Your task to perform on an android device: Open Youtube and go to the subscriptions tab Image 0: 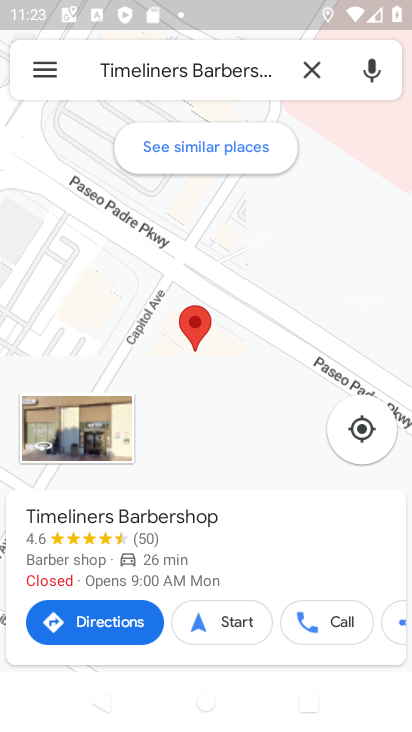
Step 0: press home button
Your task to perform on an android device: Open Youtube and go to the subscriptions tab Image 1: 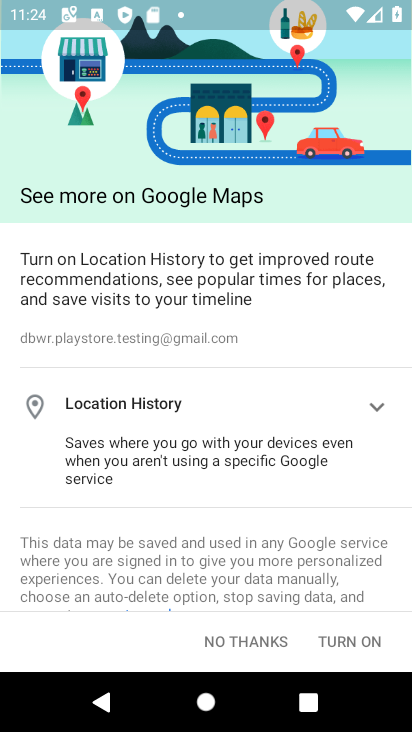
Step 1: press home button
Your task to perform on an android device: Open Youtube and go to the subscriptions tab Image 2: 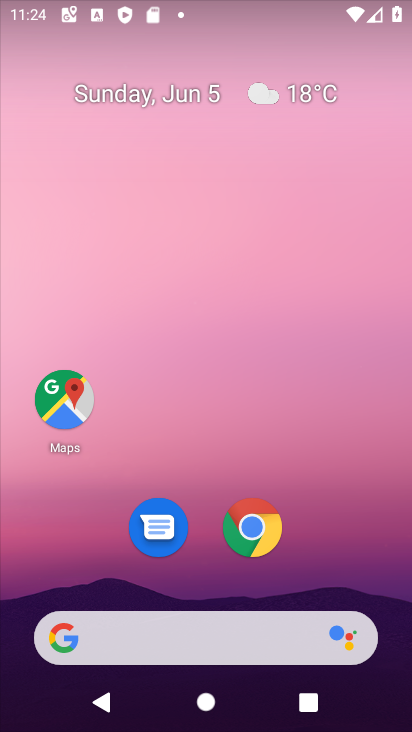
Step 2: drag from (330, 510) to (333, 377)
Your task to perform on an android device: Open Youtube and go to the subscriptions tab Image 3: 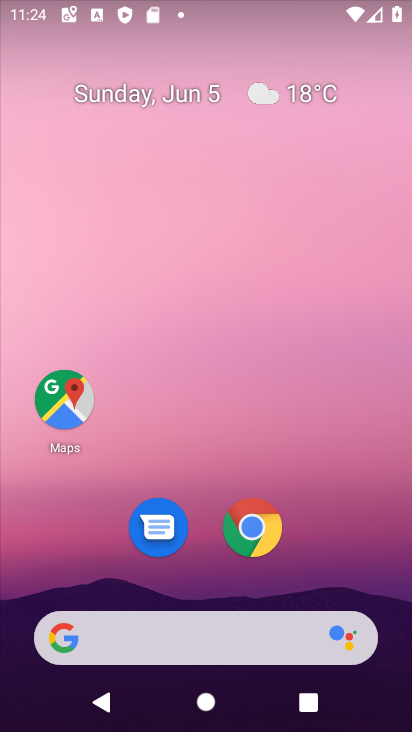
Step 3: drag from (330, 564) to (286, 215)
Your task to perform on an android device: Open Youtube and go to the subscriptions tab Image 4: 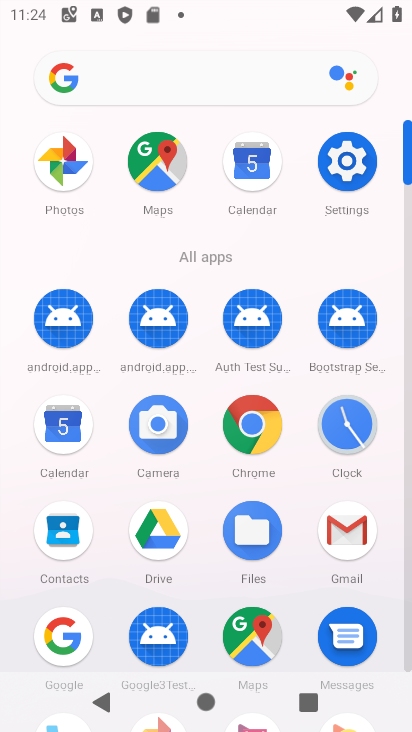
Step 4: click (405, 607)
Your task to perform on an android device: Open Youtube and go to the subscriptions tab Image 5: 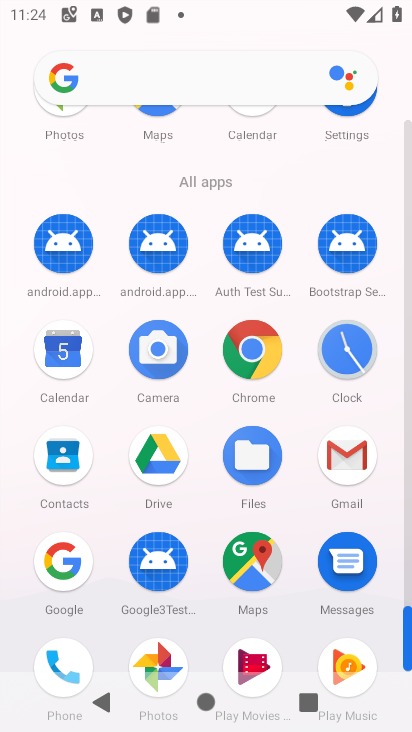
Step 5: drag from (391, 608) to (370, 303)
Your task to perform on an android device: Open Youtube and go to the subscriptions tab Image 6: 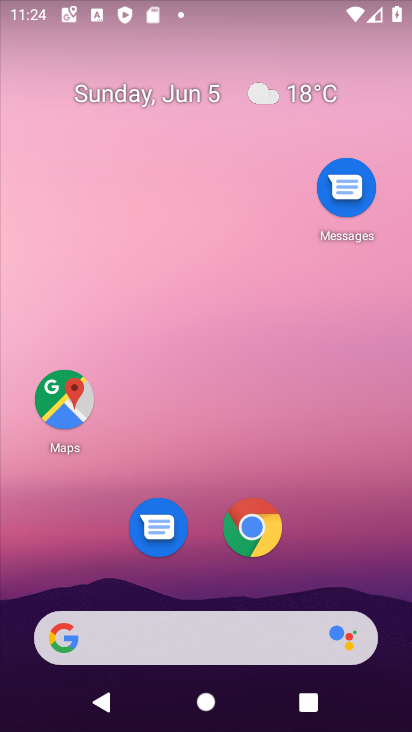
Step 6: drag from (352, 524) to (341, 249)
Your task to perform on an android device: Open Youtube and go to the subscriptions tab Image 7: 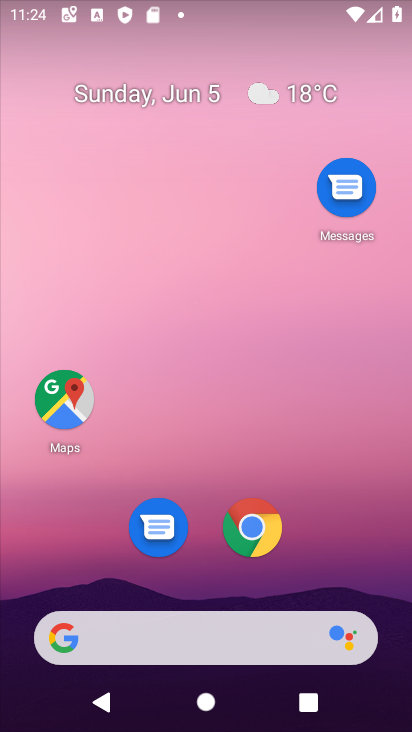
Step 7: drag from (354, 557) to (335, 154)
Your task to perform on an android device: Open Youtube and go to the subscriptions tab Image 8: 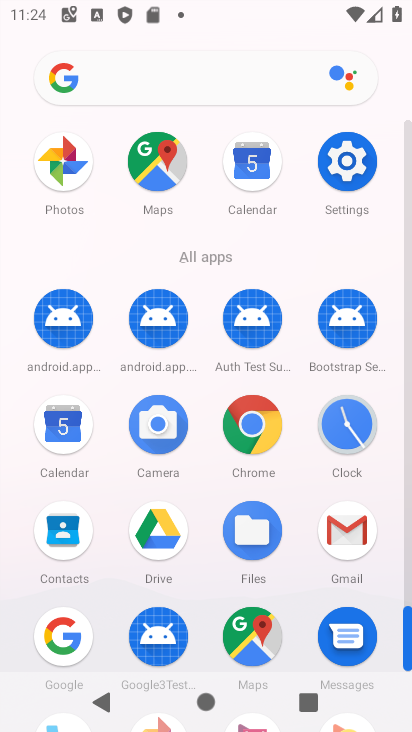
Step 8: click (410, 692)
Your task to perform on an android device: Open Youtube and go to the subscriptions tab Image 9: 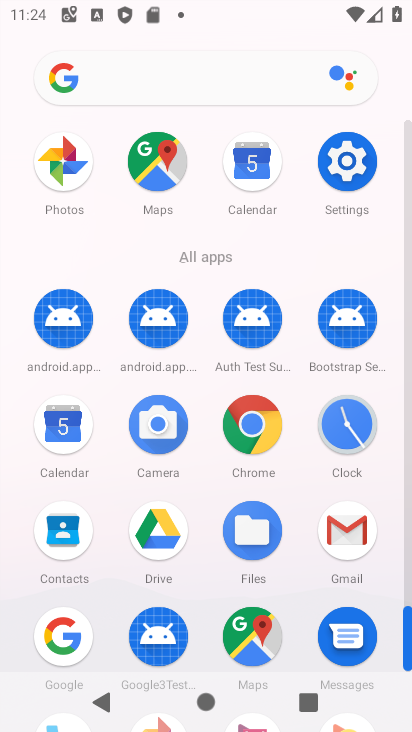
Step 9: drag from (382, 593) to (348, 220)
Your task to perform on an android device: Open Youtube and go to the subscriptions tab Image 10: 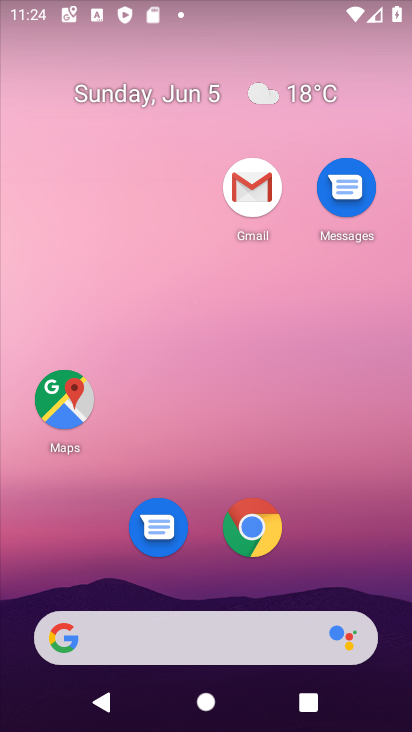
Step 10: drag from (344, 549) to (312, 78)
Your task to perform on an android device: Open Youtube and go to the subscriptions tab Image 11: 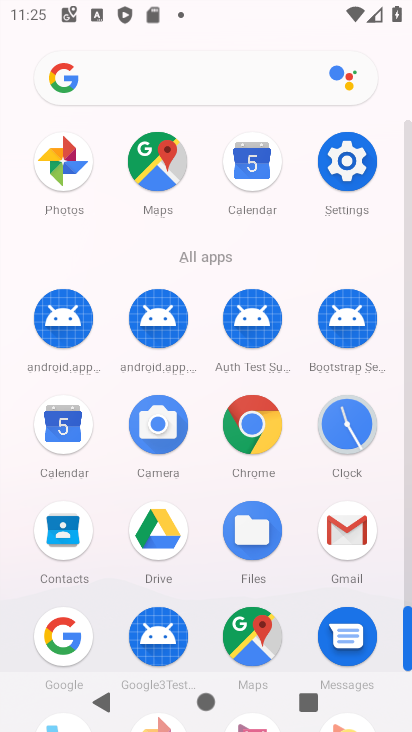
Step 11: drag from (295, 560) to (258, 148)
Your task to perform on an android device: Open Youtube and go to the subscriptions tab Image 12: 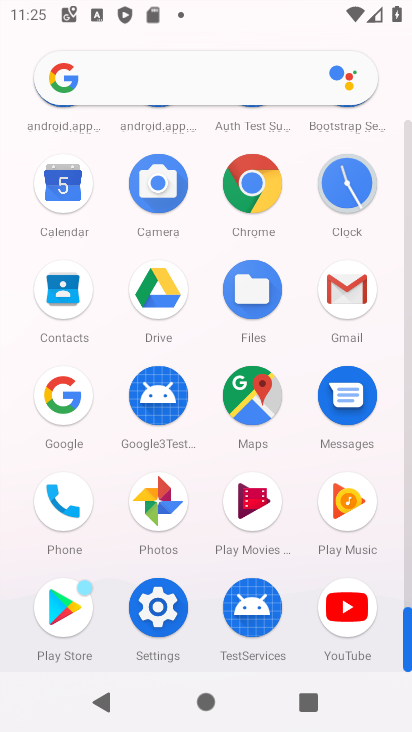
Step 12: click (344, 617)
Your task to perform on an android device: Open Youtube and go to the subscriptions tab Image 13: 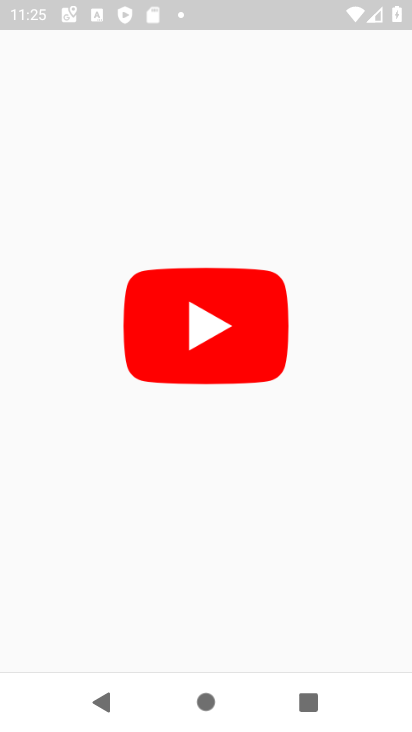
Step 13: click (344, 617)
Your task to perform on an android device: Open Youtube and go to the subscriptions tab Image 14: 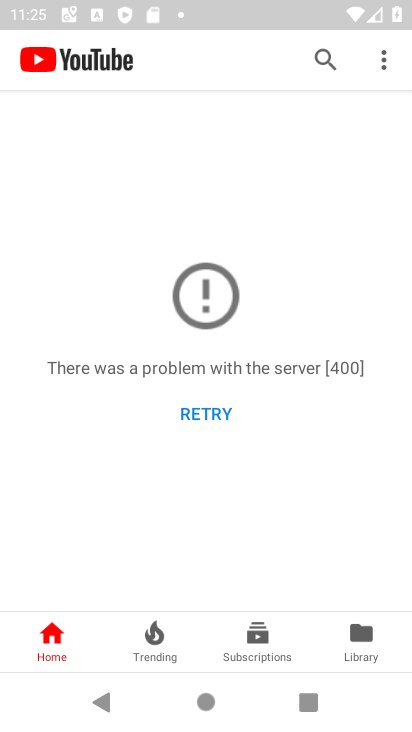
Step 14: click (253, 630)
Your task to perform on an android device: Open Youtube and go to the subscriptions tab Image 15: 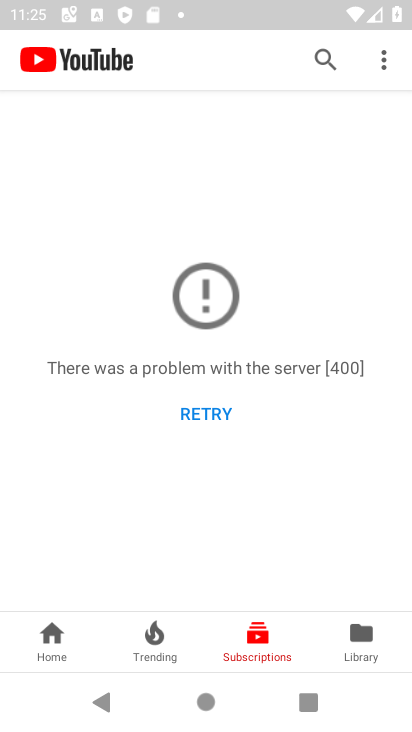
Step 15: task complete